Your task to perform on an android device: show emergency info Image 0: 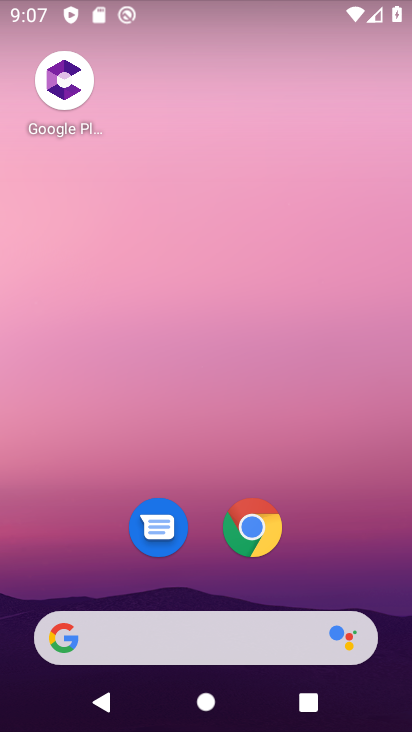
Step 0: drag from (395, 686) to (381, 300)
Your task to perform on an android device: show emergency info Image 1: 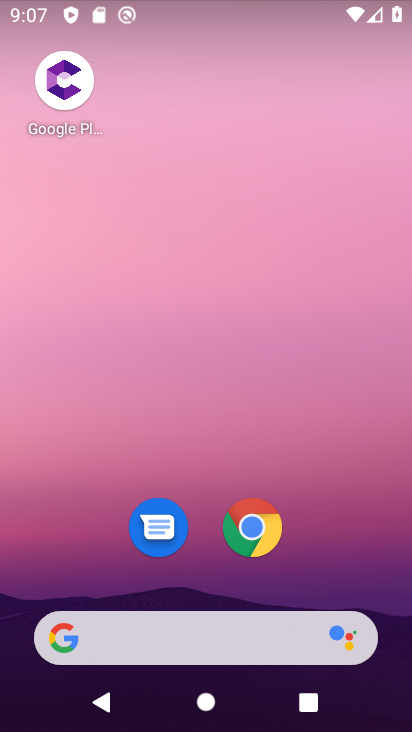
Step 1: drag from (384, 556) to (349, 266)
Your task to perform on an android device: show emergency info Image 2: 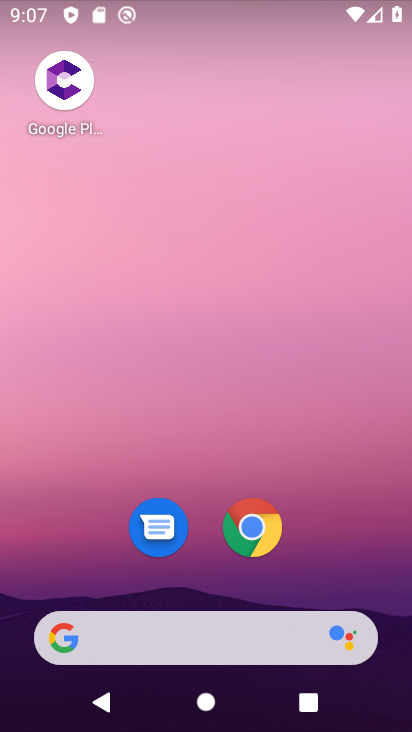
Step 2: drag from (388, 705) to (305, 170)
Your task to perform on an android device: show emergency info Image 3: 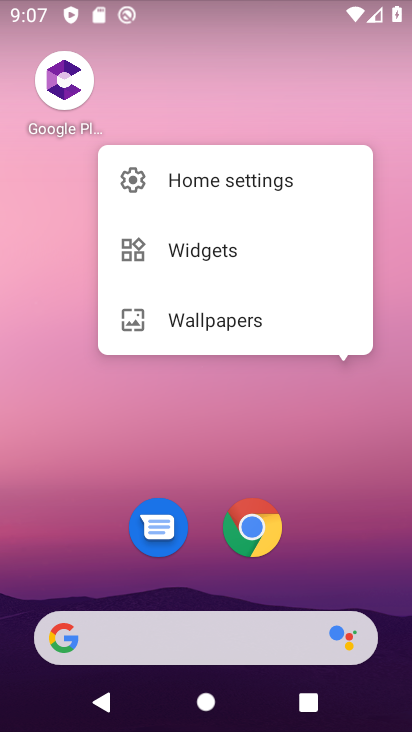
Step 3: click (319, 535)
Your task to perform on an android device: show emergency info Image 4: 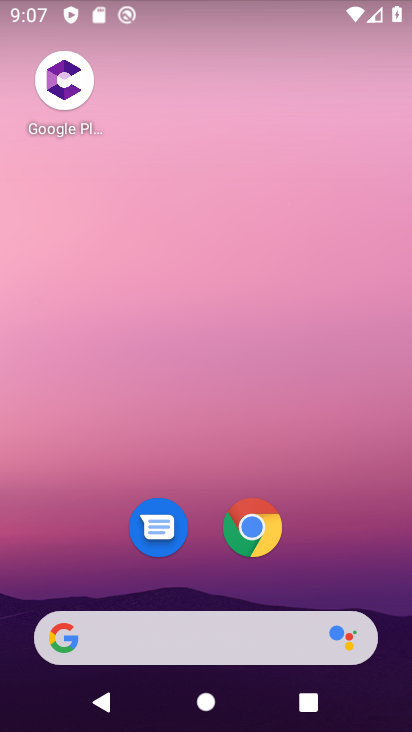
Step 4: drag from (394, 702) to (335, 105)
Your task to perform on an android device: show emergency info Image 5: 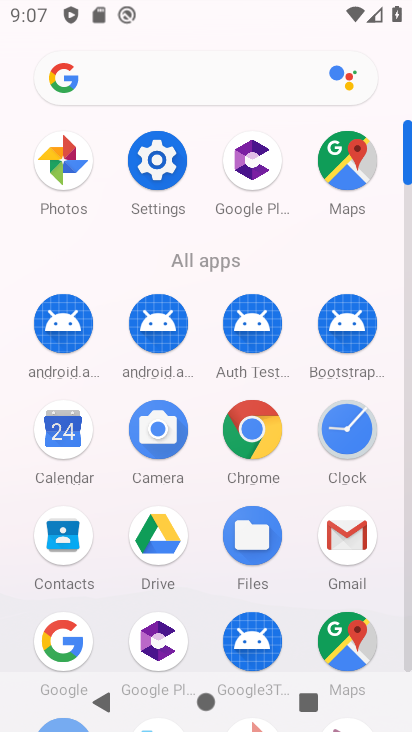
Step 5: click (149, 162)
Your task to perform on an android device: show emergency info Image 6: 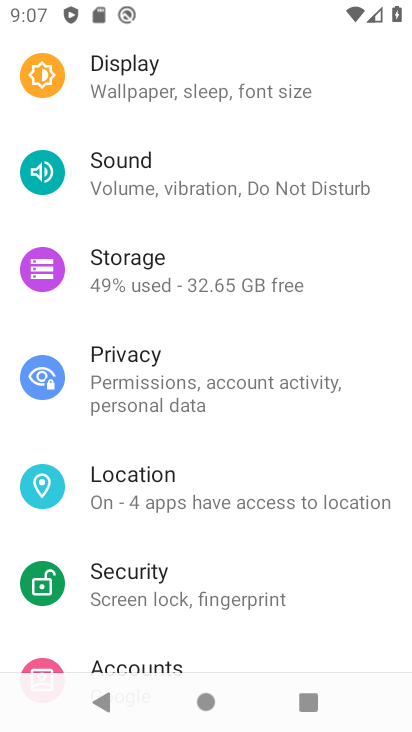
Step 6: drag from (341, 660) to (316, 235)
Your task to perform on an android device: show emergency info Image 7: 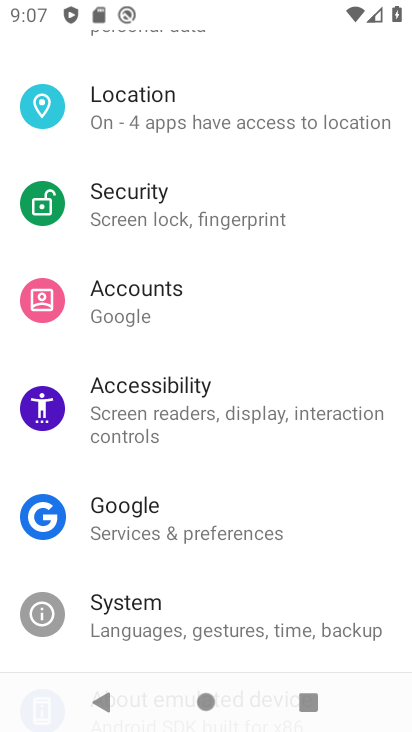
Step 7: drag from (293, 648) to (322, 270)
Your task to perform on an android device: show emergency info Image 8: 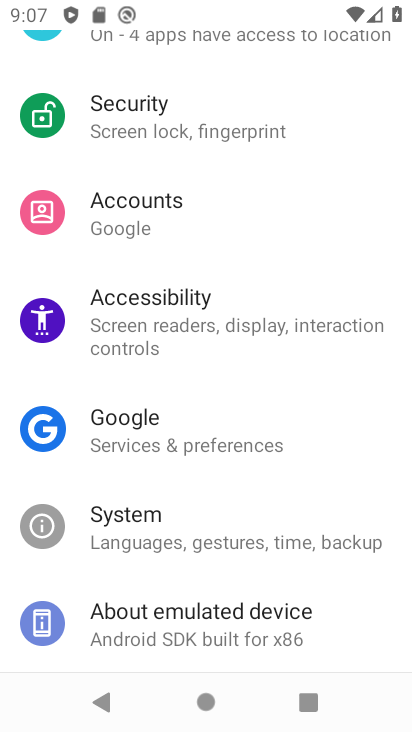
Step 8: click (144, 614)
Your task to perform on an android device: show emergency info Image 9: 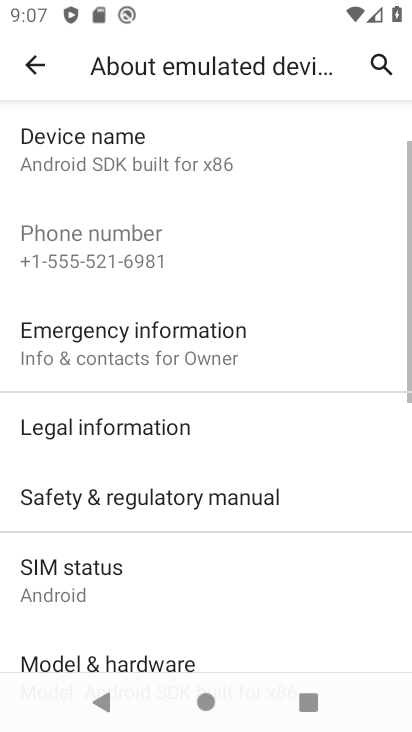
Step 9: click (113, 338)
Your task to perform on an android device: show emergency info Image 10: 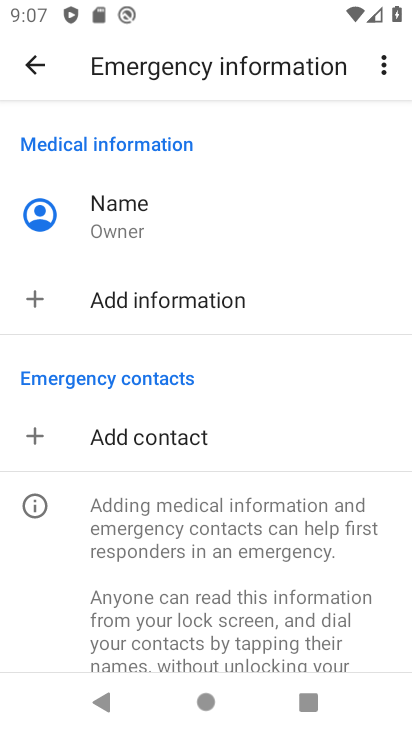
Step 10: task complete